Your task to perform on an android device: Is it going to rain today? Image 0: 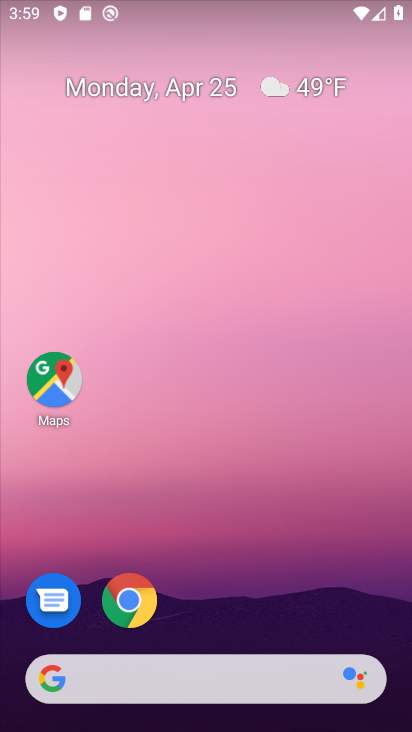
Step 0: click (195, 669)
Your task to perform on an android device: Is it going to rain today? Image 1: 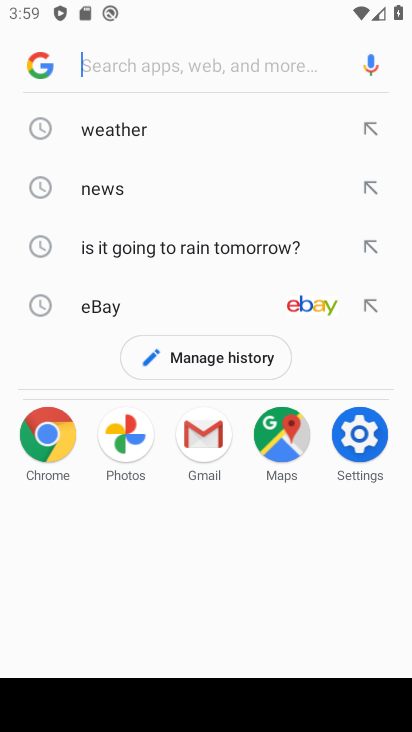
Step 1: click (140, 126)
Your task to perform on an android device: Is it going to rain today? Image 2: 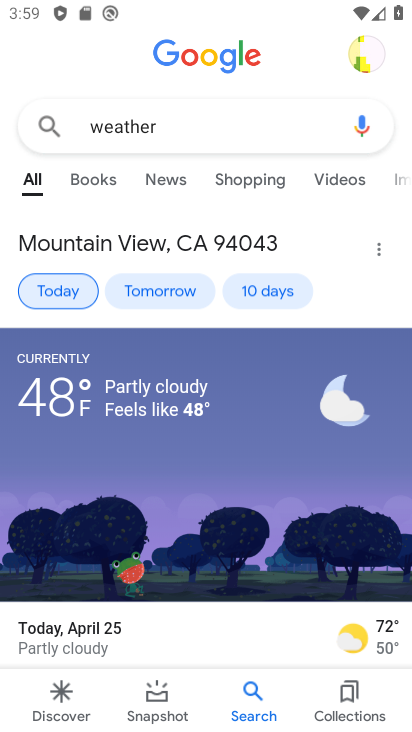
Step 2: task complete